Your task to perform on an android device: snooze an email in the gmail app Image 0: 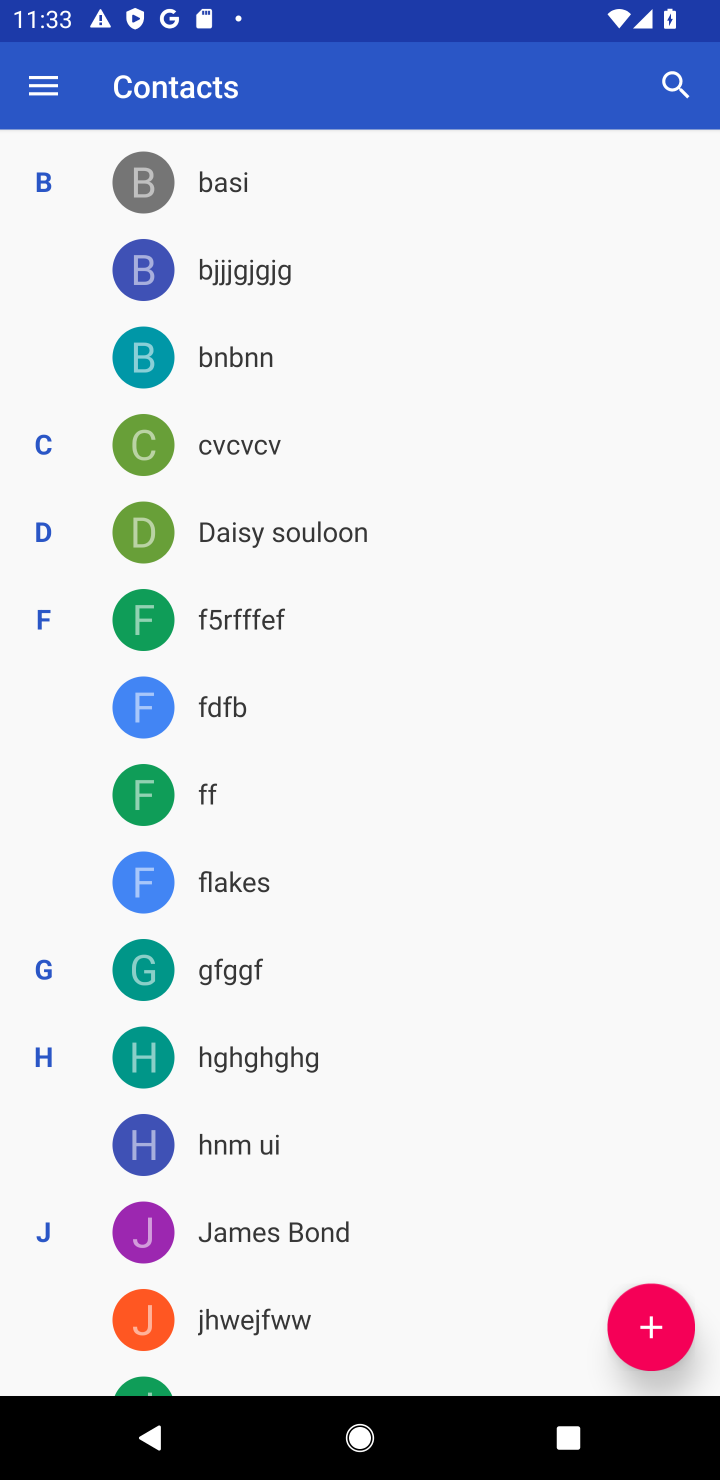
Step 0: press home button
Your task to perform on an android device: snooze an email in the gmail app Image 1: 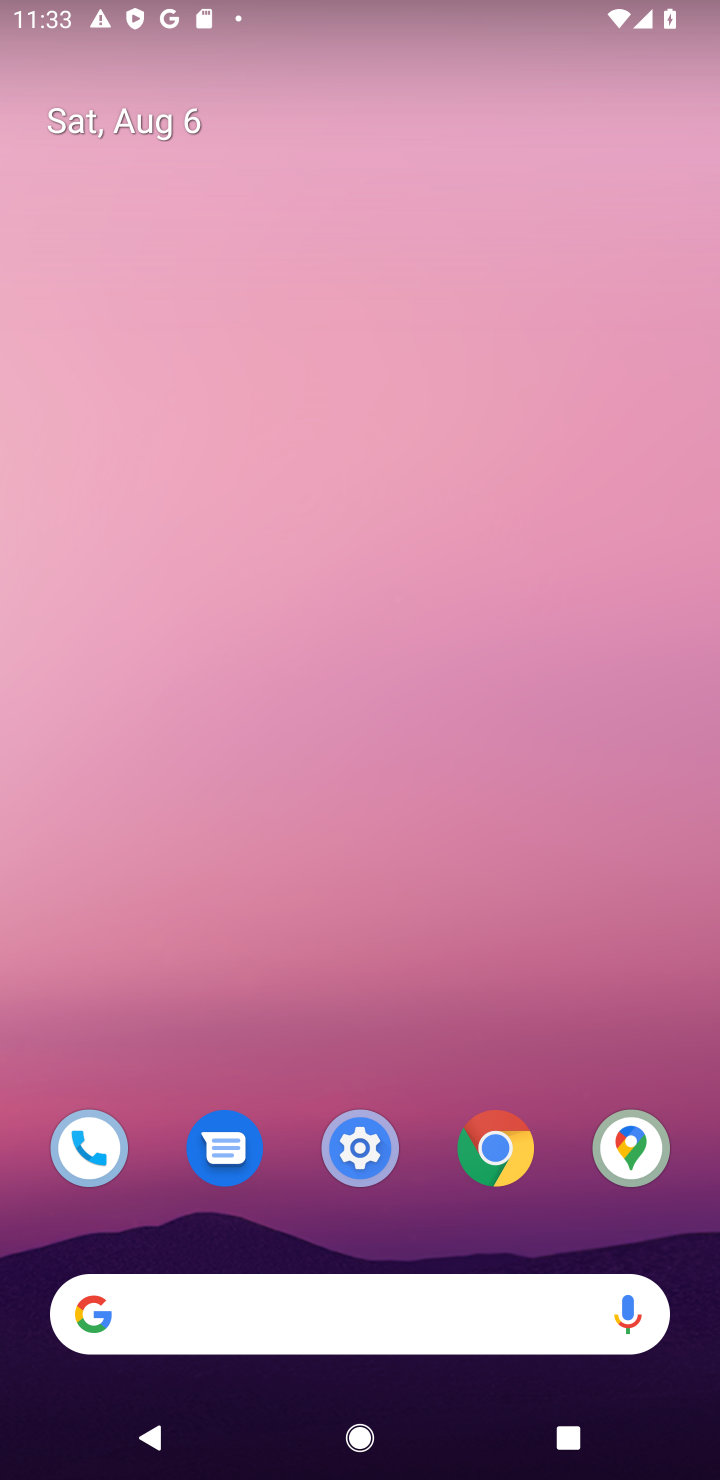
Step 1: drag from (394, 995) to (410, 3)
Your task to perform on an android device: snooze an email in the gmail app Image 2: 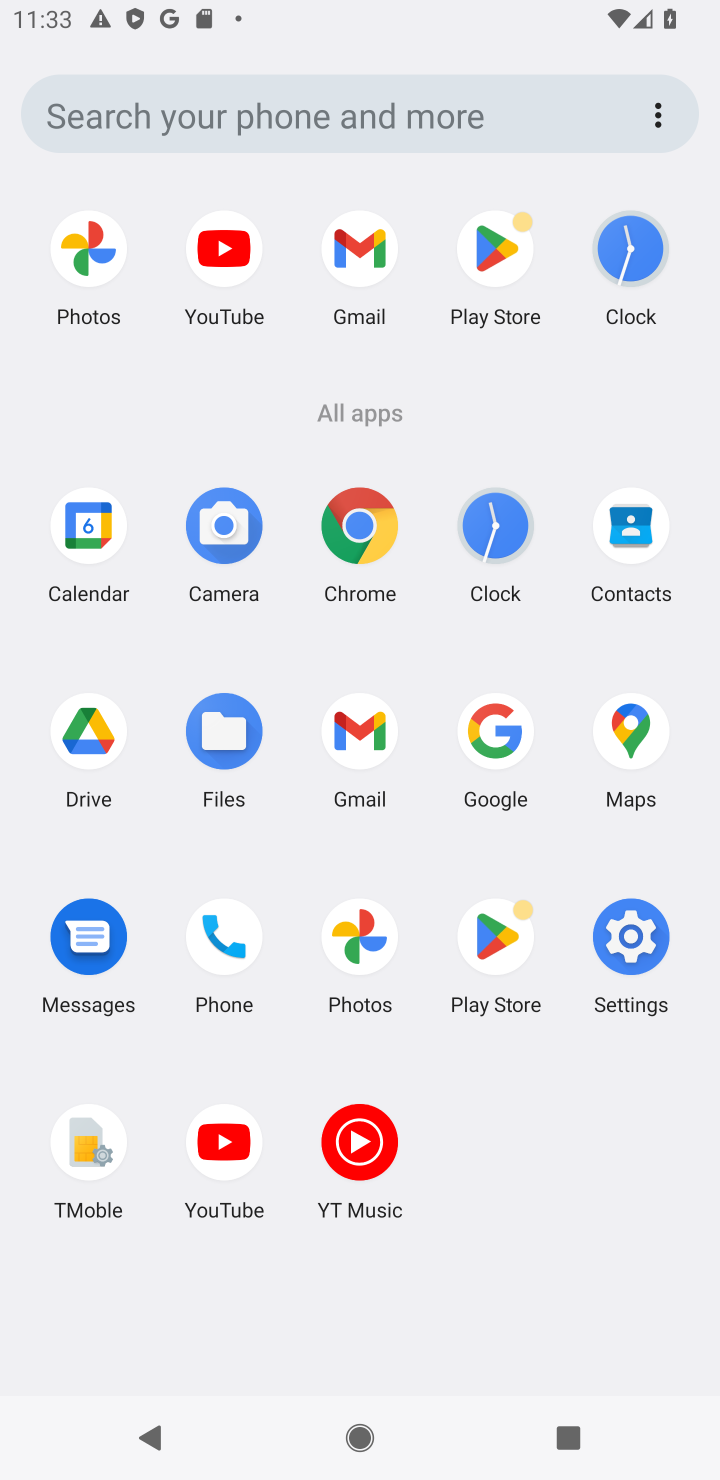
Step 2: click (353, 719)
Your task to perform on an android device: snooze an email in the gmail app Image 3: 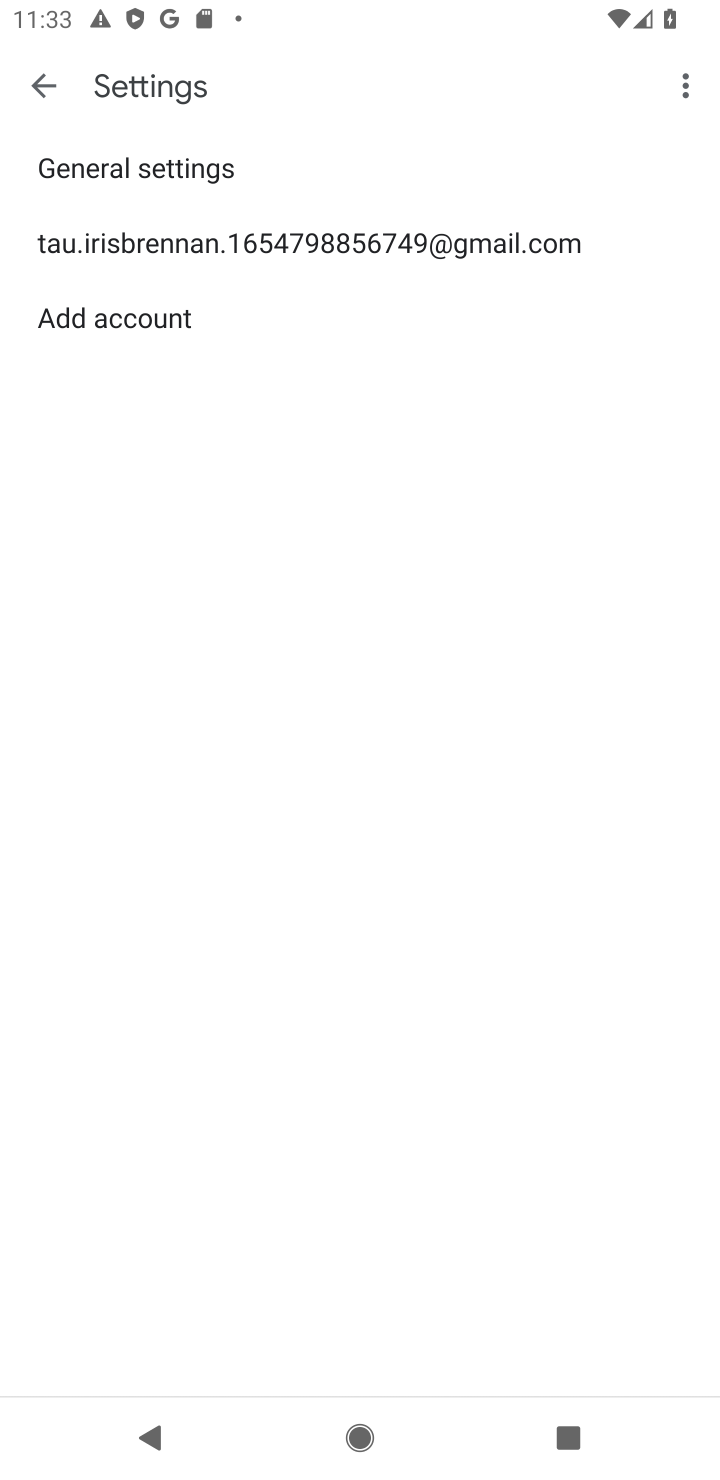
Step 3: click (40, 84)
Your task to perform on an android device: snooze an email in the gmail app Image 4: 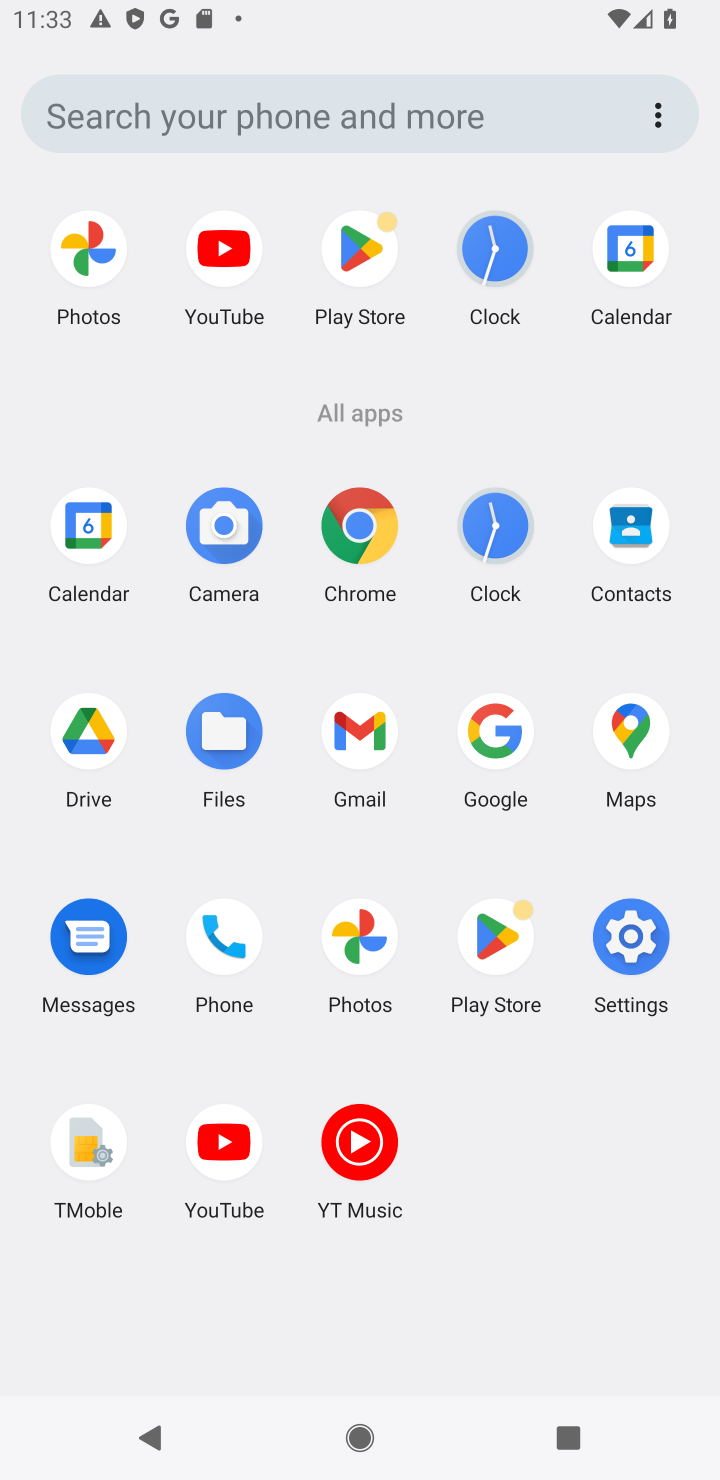
Step 4: click (362, 712)
Your task to perform on an android device: snooze an email in the gmail app Image 5: 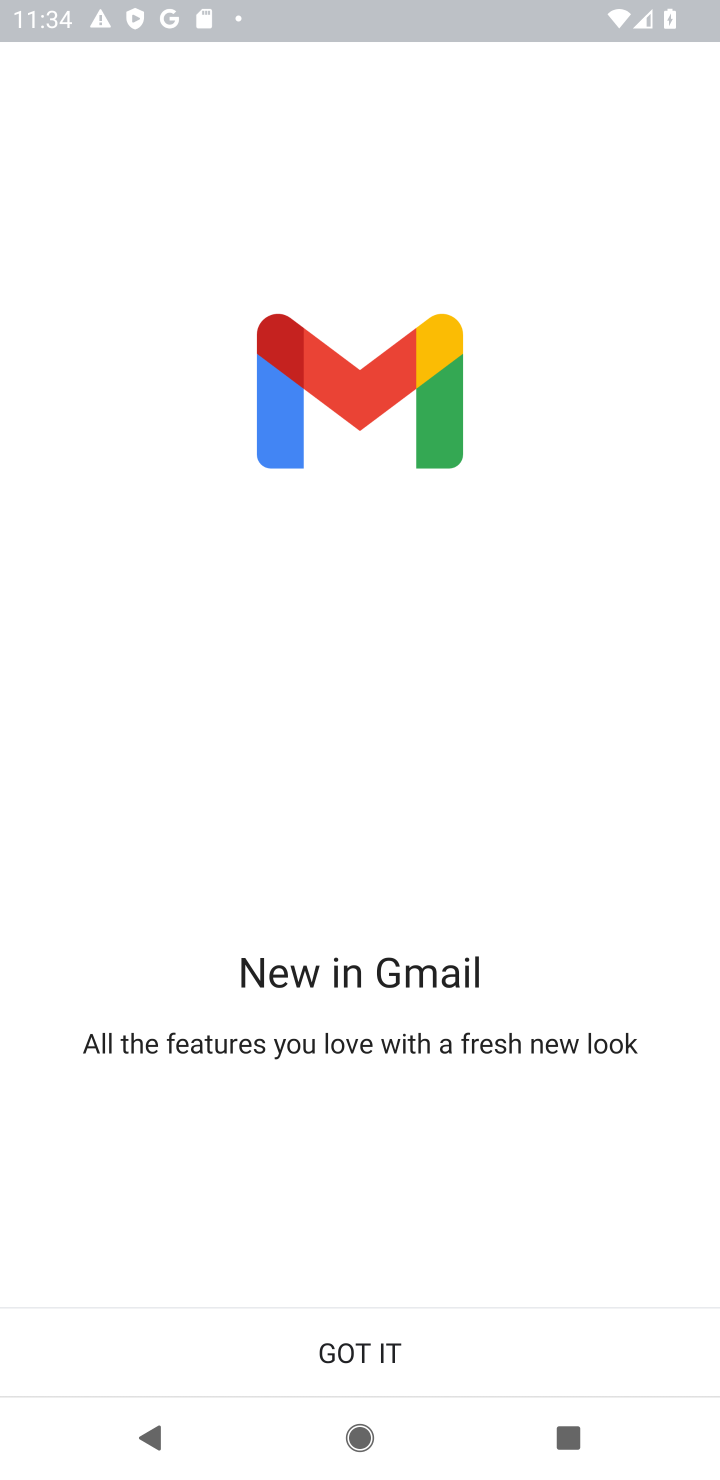
Step 5: click (352, 1347)
Your task to perform on an android device: snooze an email in the gmail app Image 6: 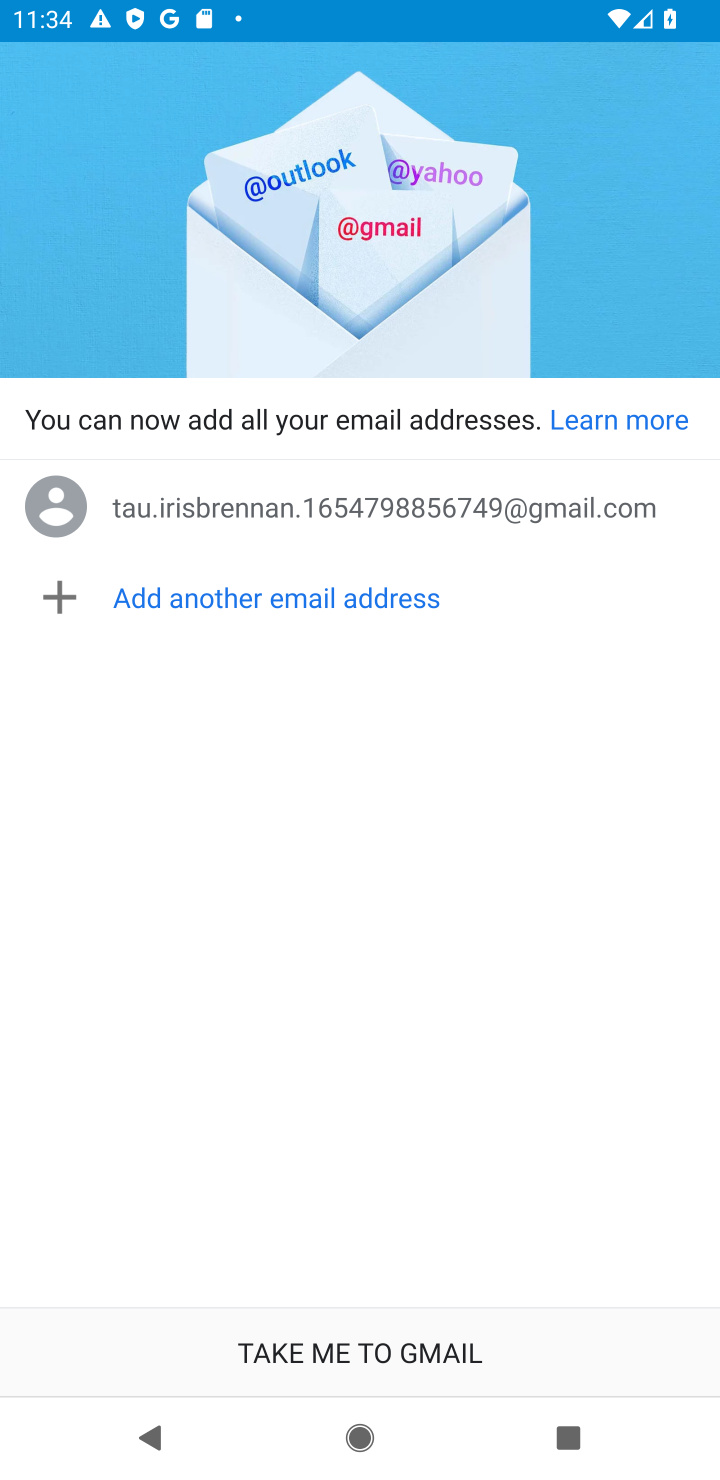
Step 6: click (360, 1354)
Your task to perform on an android device: snooze an email in the gmail app Image 7: 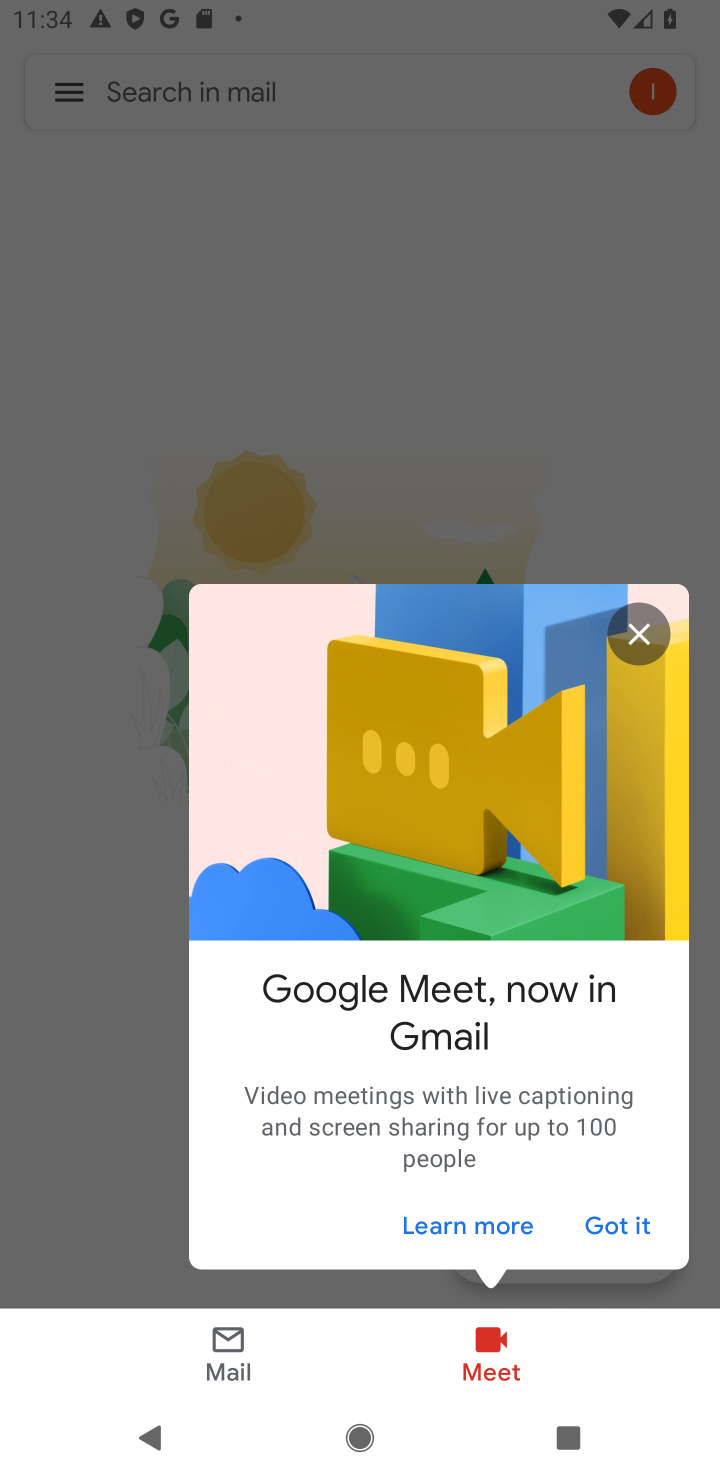
Step 7: click (646, 621)
Your task to perform on an android device: snooze an email in the gmail app Image 8: 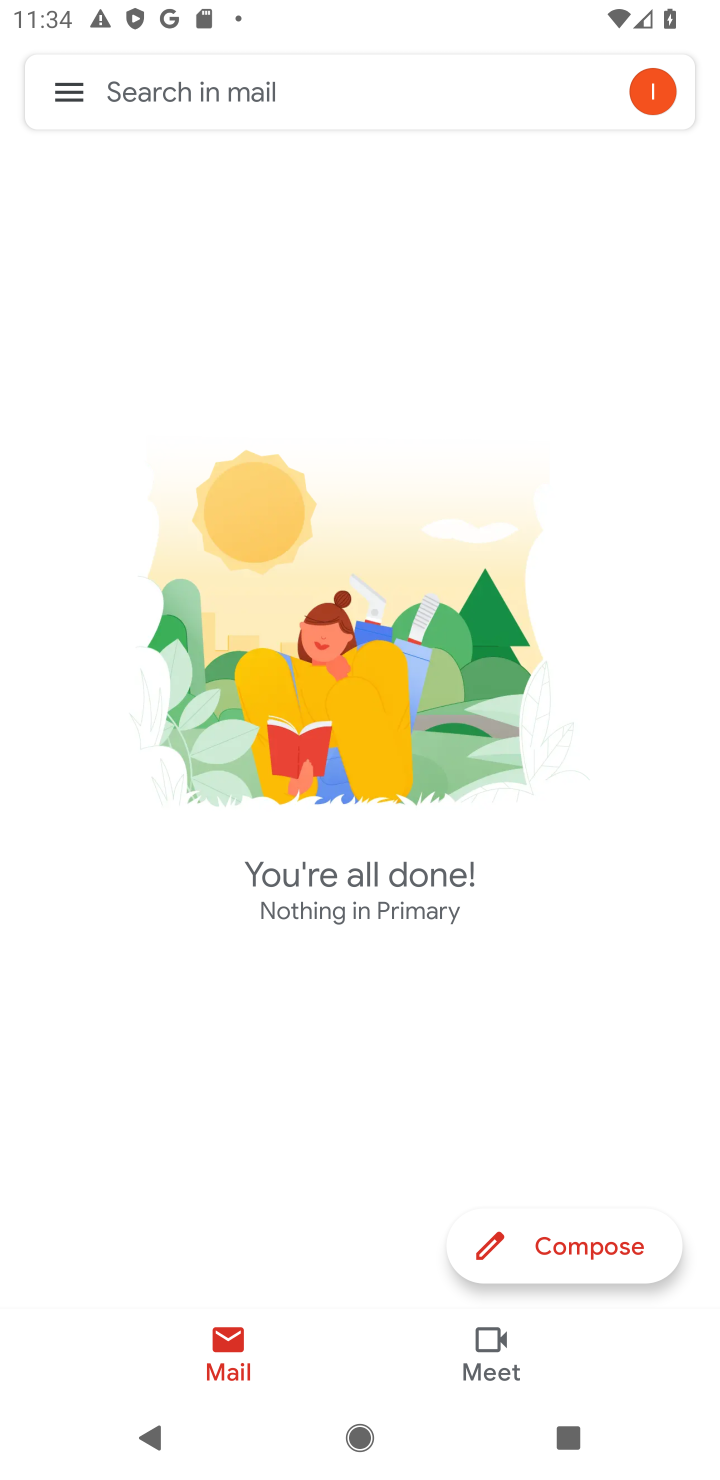
Step 8: click (62, 91)
Your task to perform on an android device: snooze an email in the gmail app Image 9: 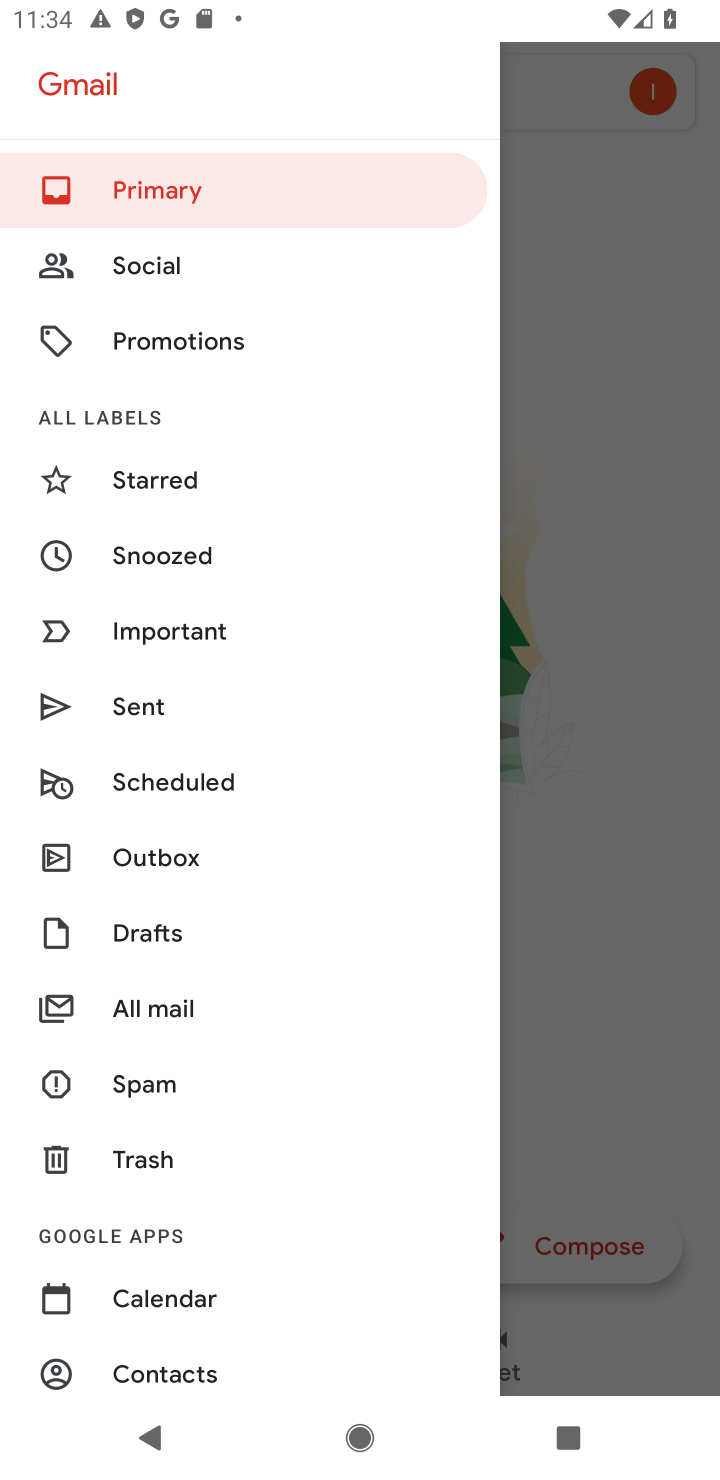
Step 9: click (142, 1013)
Your task to perform on an android device: snooze an email in the gmail app Image 10: 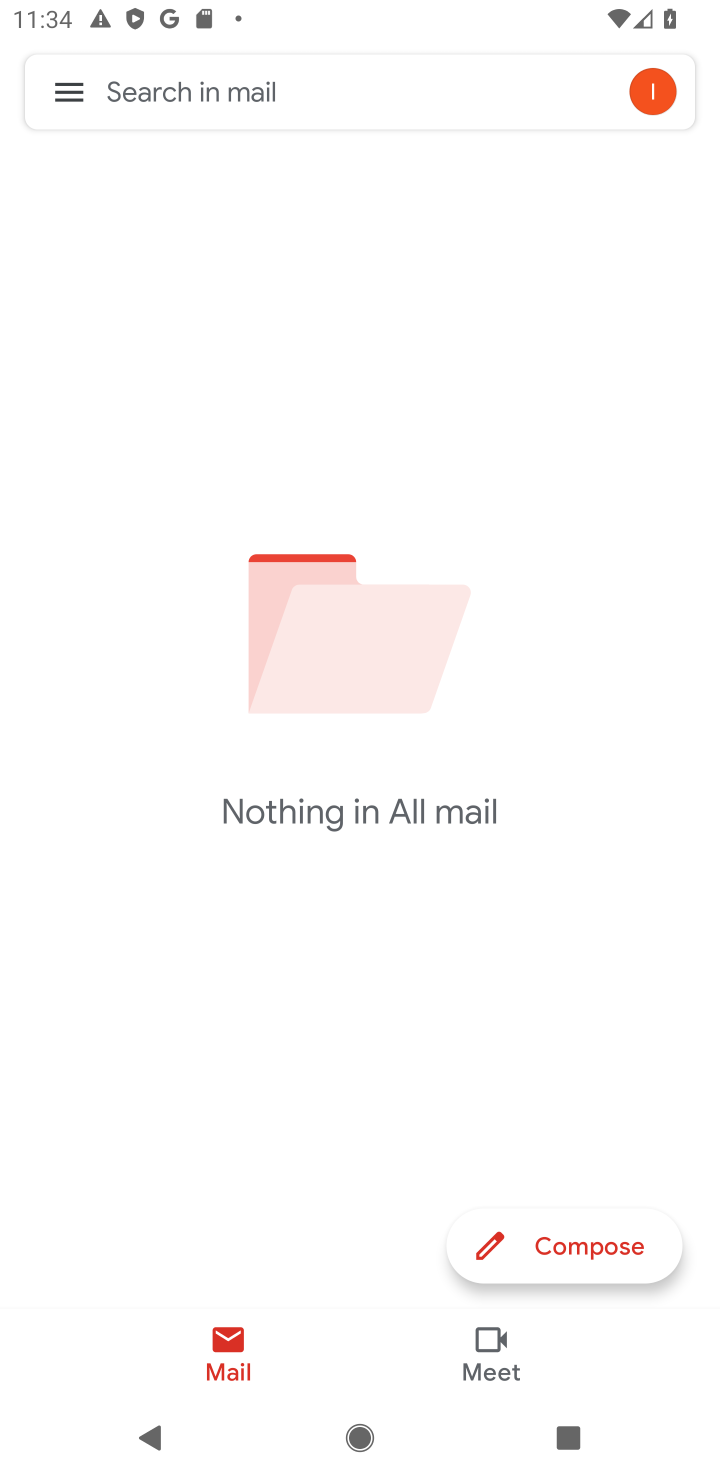
Step 10: task complete